Your task to perform on an android device: set the stopwatch Image 0: 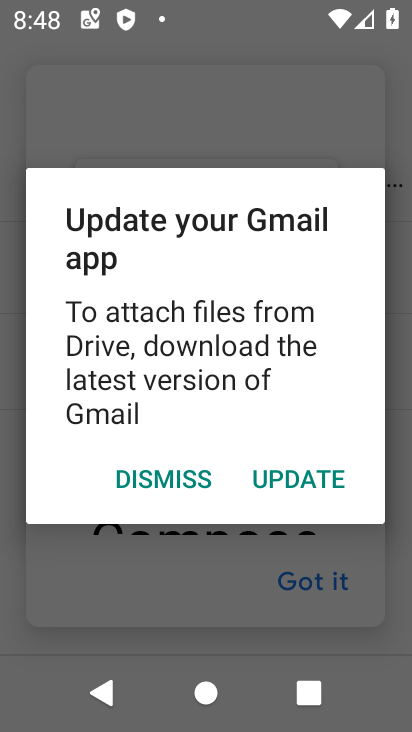
Step 0: click (170, 467)
Your task to perform on an android device: set the stopwatch Image 1: 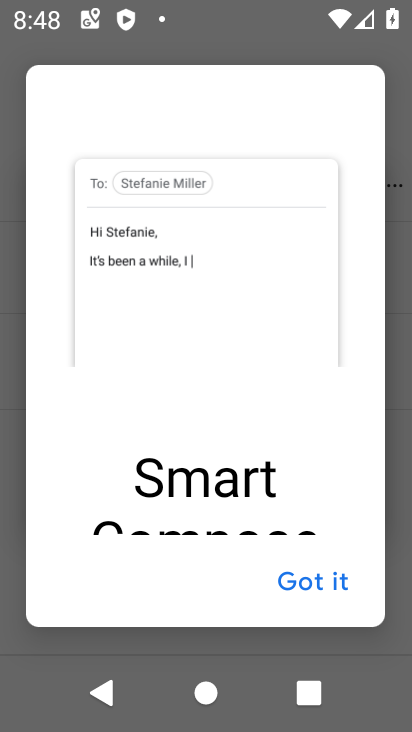
Step 1: press home button
Your task to perform on an android device: set the stopwatch Image 2: 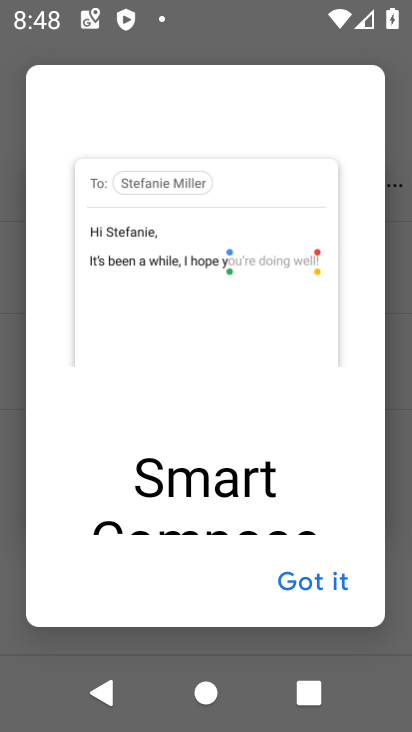
Step 2: drag from (219, 490) to (266, 277)
Your task to perform on an android device: set the stopwatch Image 3: 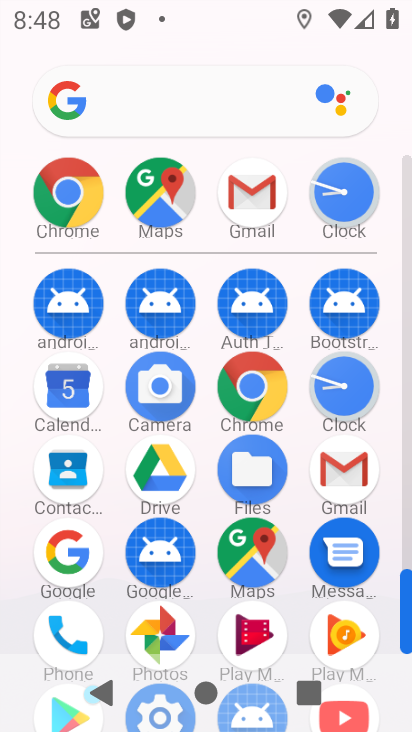
Step 3: click (339, 387)
Your task to perform on an android device: set the stopwatch Image 4: 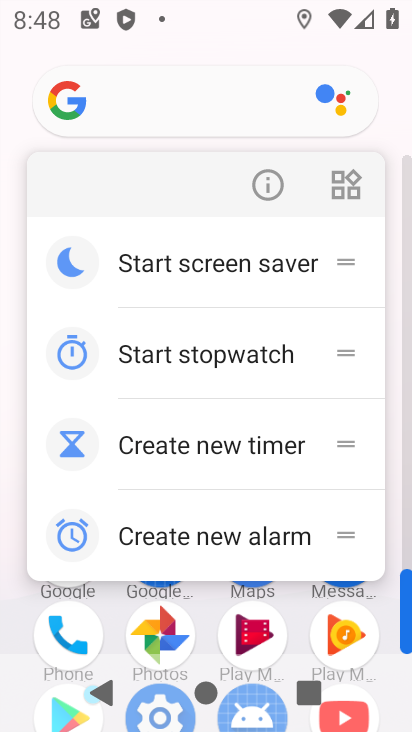
Step 4: click (277, 189)
Your task to perform on an android device: set the stopwatch Image 5: 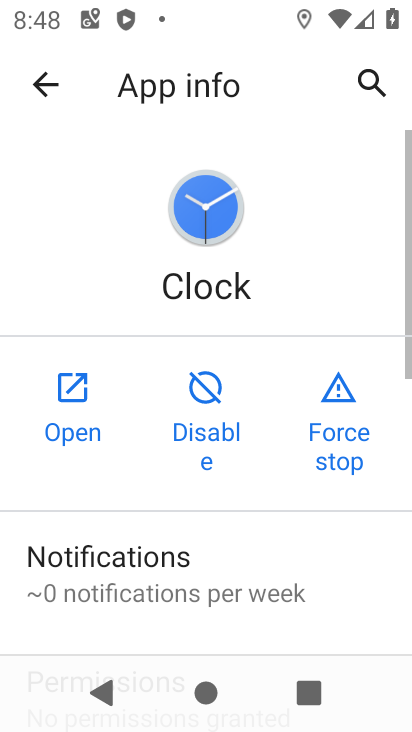
Step 5: click (58, 400)
Your task to perform on an android device: set the stopwatch Image 6: 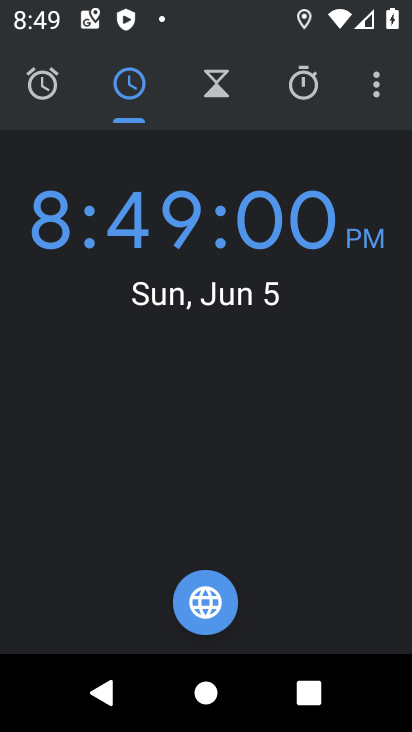
Step 6: click (303, 96)
Your task to perform on an android device: set the stopwatch Image 7: 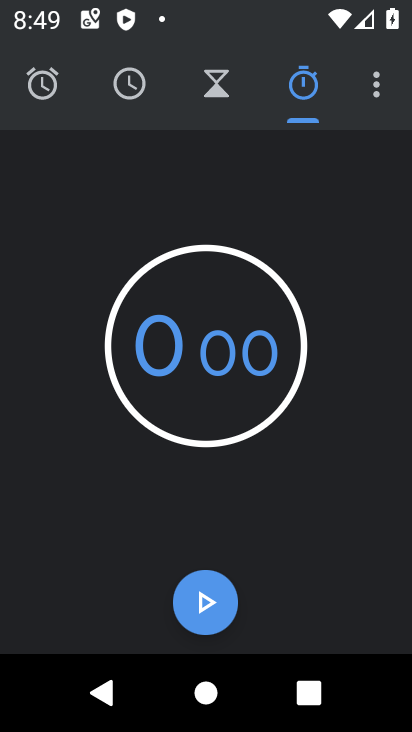
Step 7: click (204, 596)
Your task to perform on an android device: set the stopwatch Image 8: 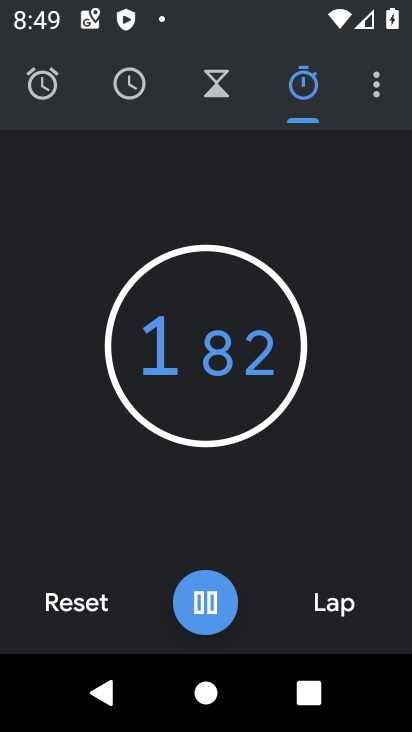
Step 8: task complete